Your task to perform on an android device: Go to Reddit.com Image 0: 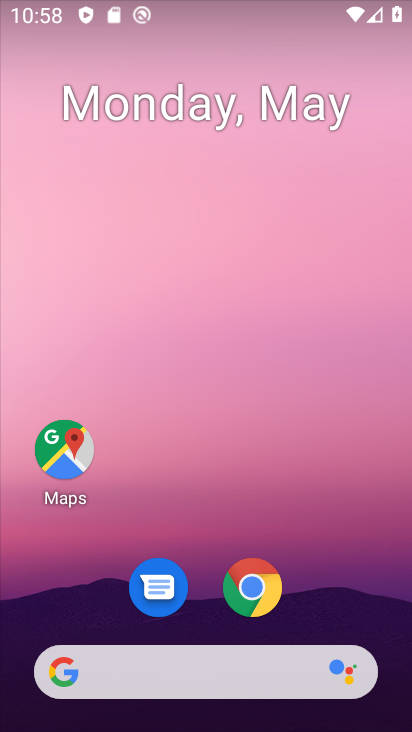
Step 0: drag from (364, 661) to (242, 197)
Your task to perform on an android device: Go to Reddit.com Image 1: 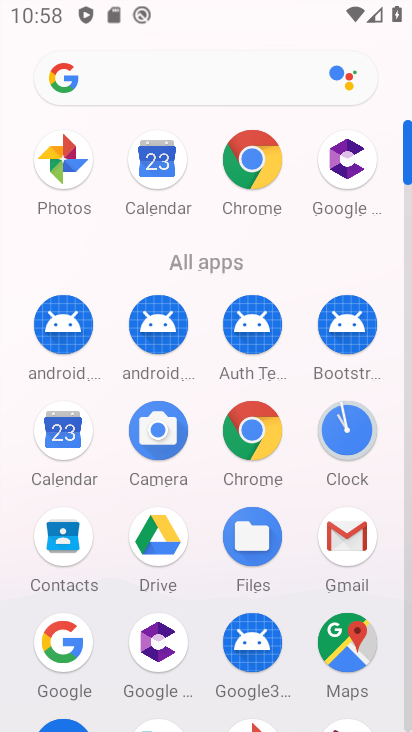
Step 1: drag from (338, 621) to (230, 122)
Your task to perform on an android device: Go to Reddit.com Image 2: 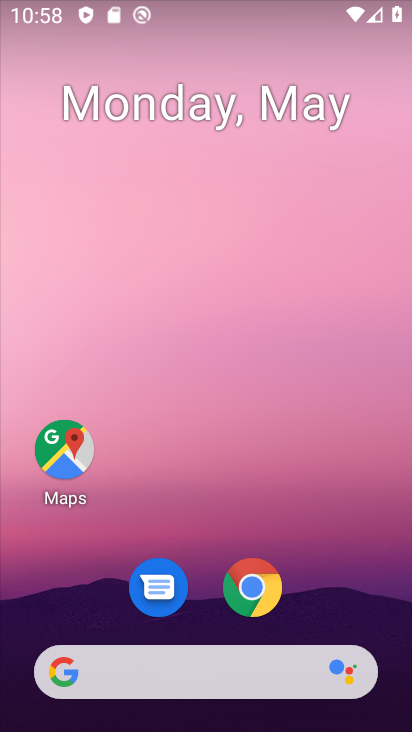
Step 2: drag from (319, 637) to (246, 0)
Your task to perform on an android device: Go to Reddit.com Image 3: 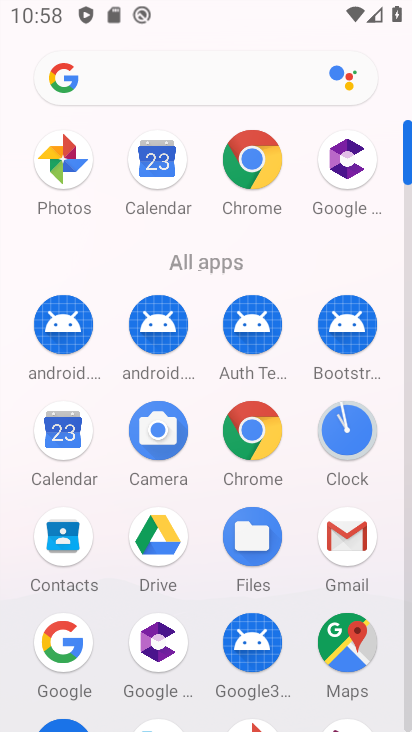
Step 3: drag from (324, 613) to (295, 4)
Your task to perform on an android device: Go to Reddit.com Image 4: 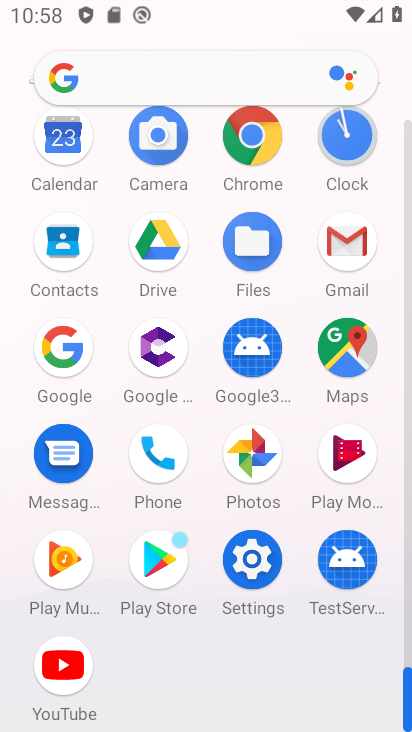
Step 4: click (252, 136)
Your task to perform on an android device: Go to Reddit.com Image 5: 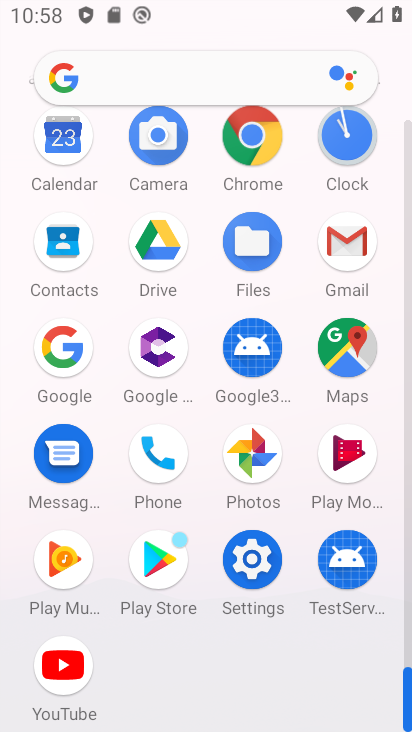
Step 5: click (252, 136)
Your task to perform on an android device: Go to Reddit.com Image 6: 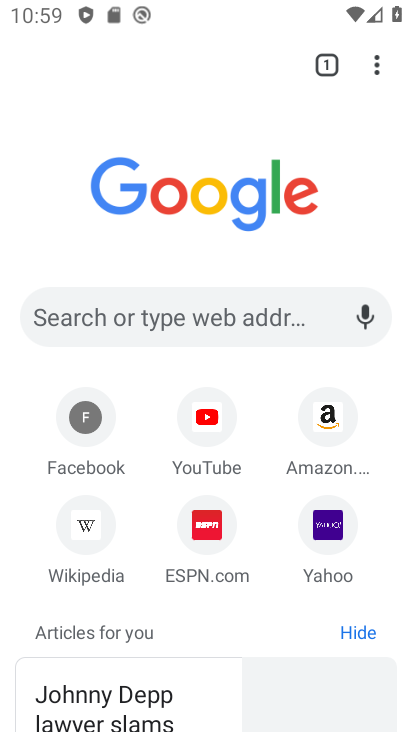
Step 6: click (74, 317)
Your task to perform on an android device: Go to Reddit.com Image 7: 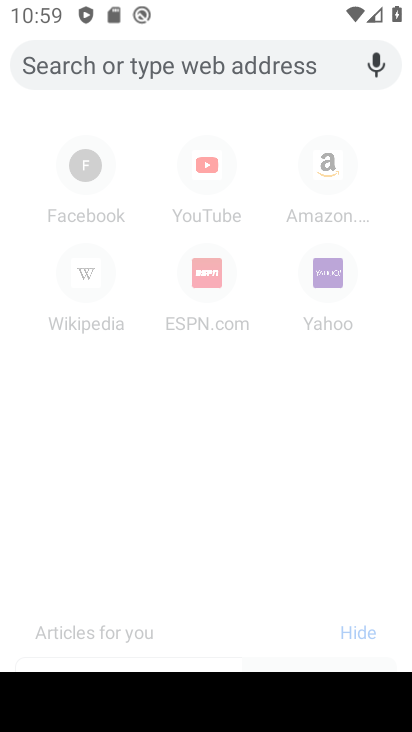
Step 7: type "reddit.com"
Your task to perform on an android device: Go to Reddit.com Image 8: 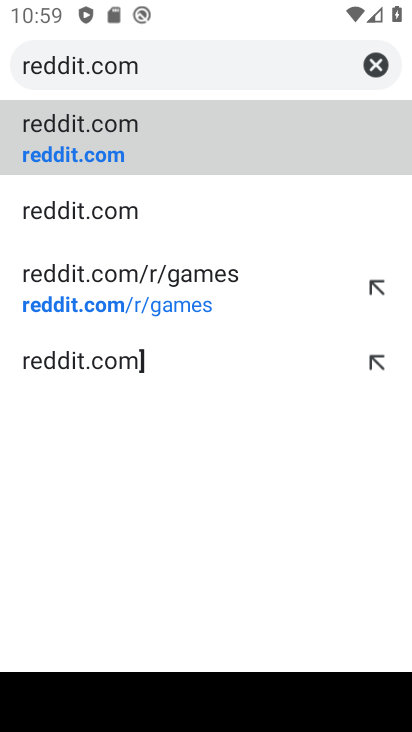
Step 8: click (65, 157)
Your task to perform on an android device: Go to Reddit.com Image 9: 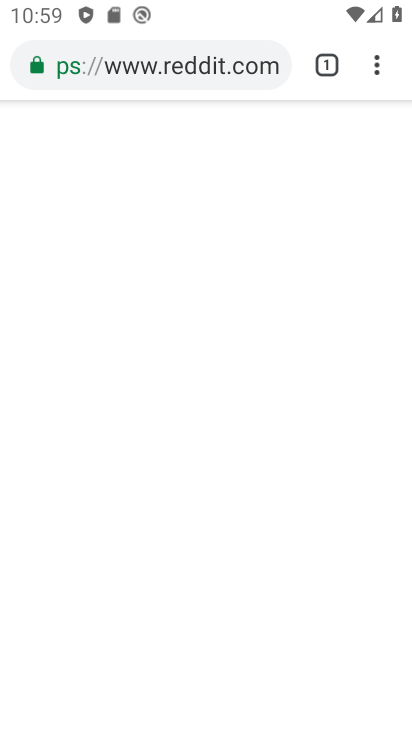
Step 9: task complete